Your task to perform on an android device: remove spam from my inbox in the gmail app Image 0: 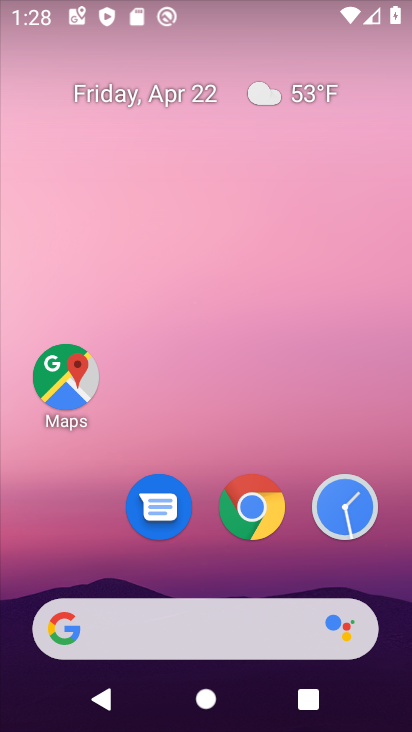
Step 0: drag from (354, 458) to (239, 0)
Your task to perform on an android device: remove spam from my inbox in the gmail app Image 1: 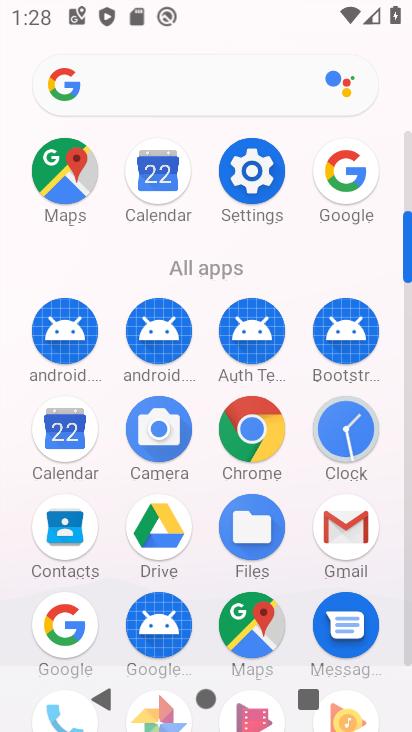
Step 1: drag from (298, 587) to (284, 250)
Your task to perform on an android device: remove spam from my inbox in the gmail app Image 2: 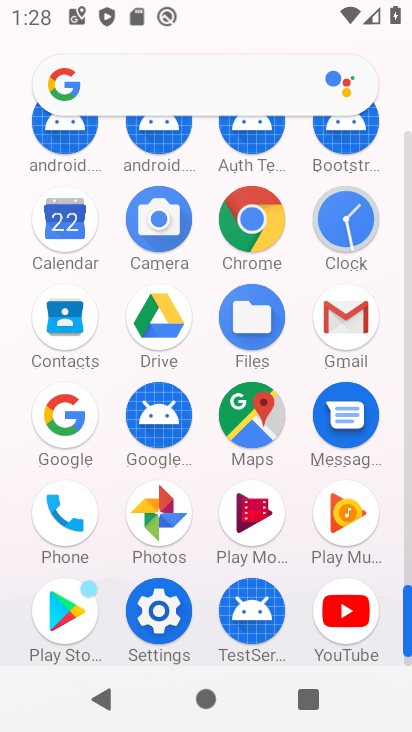
Step 2: click (327, 330)
Your task to perform on an android device: remove spam from my inbox in the gmail app Image 3: 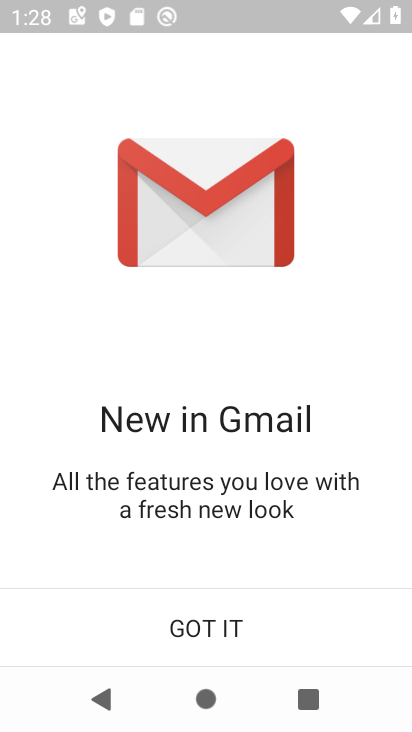
Step 3: click (185, 629)
Your task to perform on an android device: remove spam from my inbox in the gmail app Image 4: 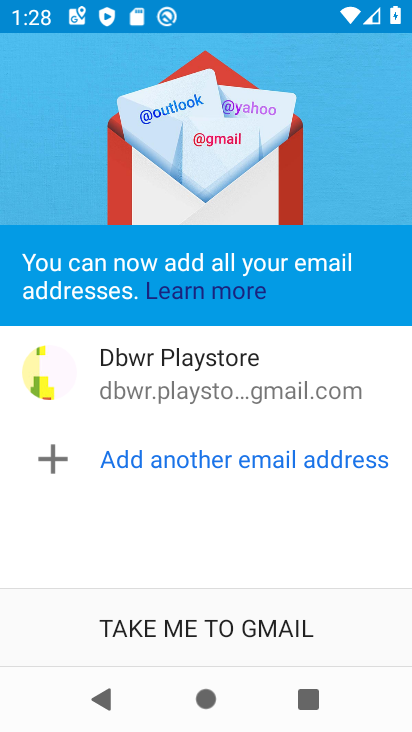
Step 4: click (162, 643)
Your task to perform on an android device: remove spam from my inbox in the gmail app Image 5: 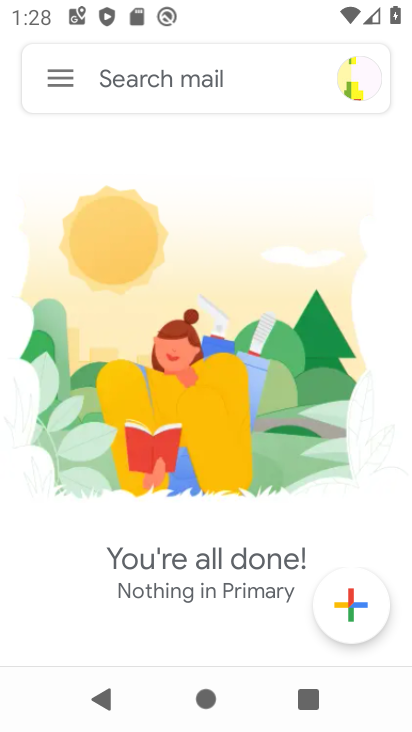
Step 5: click (53, 73)
Your task to perform on an android device: remove spam from my inbox in the gmail app Image 6: 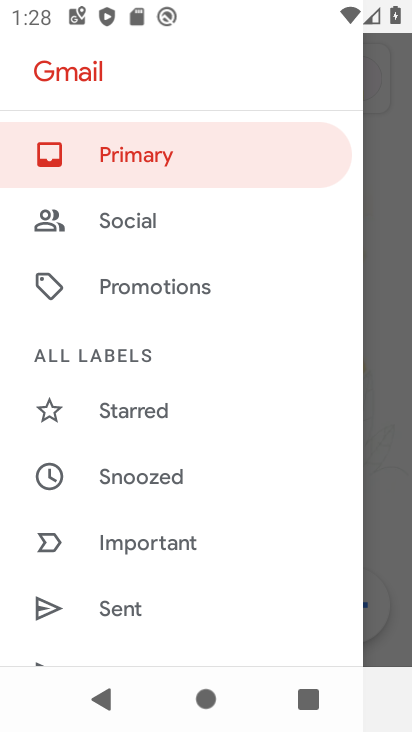
Step 6: drag from (196, 597) to (194, 241)
Your task to perform on an android device: remove spam from my inbox in the gmail app Image 7: 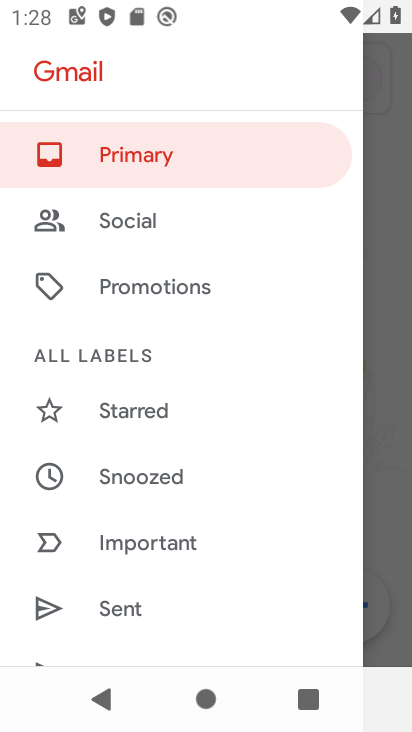
Step 7: drag from (166, 519) to (191, 171)
Your task to perform on an android device: remove spam from my inbox in the gmail app Image 8: 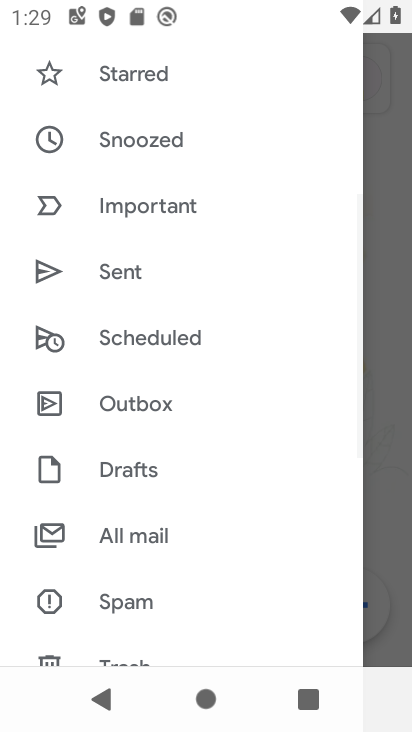
Step 8: click (121, 602)
Your task to perform on an android device: remove spam from my inbox in the gmail app Image 9: 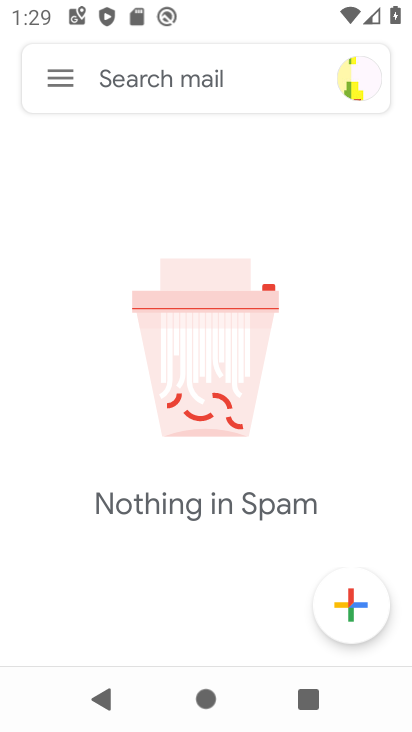
Step 9: task complete